Your task to perform on an android device: delete location history Image 0: 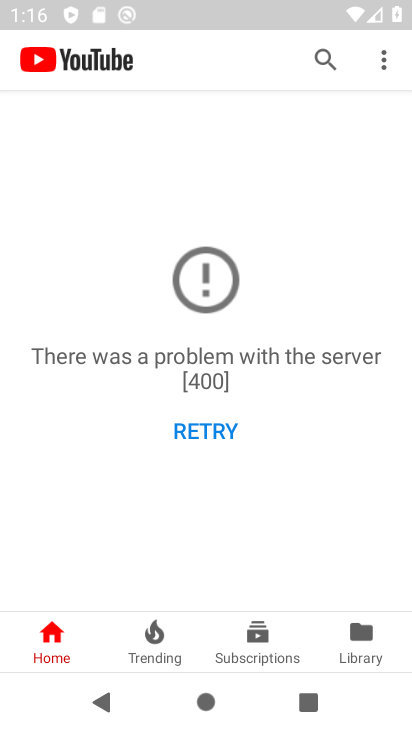
Step 0: press home button
Your task to perform on an android device: delete location history Image 1: 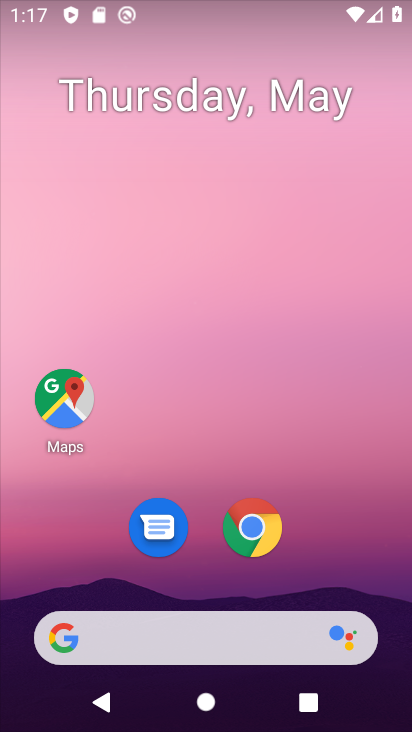
Step 1: click (60, 393)
Your task to perform on an android device: delete location history Image 2: 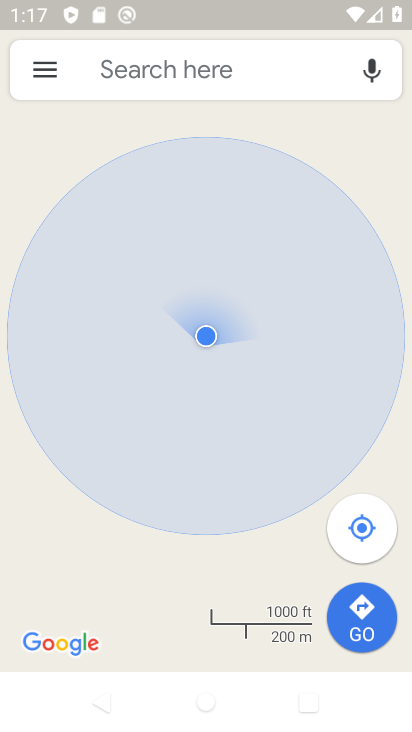
Step 2: click (60, 72)
Your task to perform on an android device: delete location history Image 3: 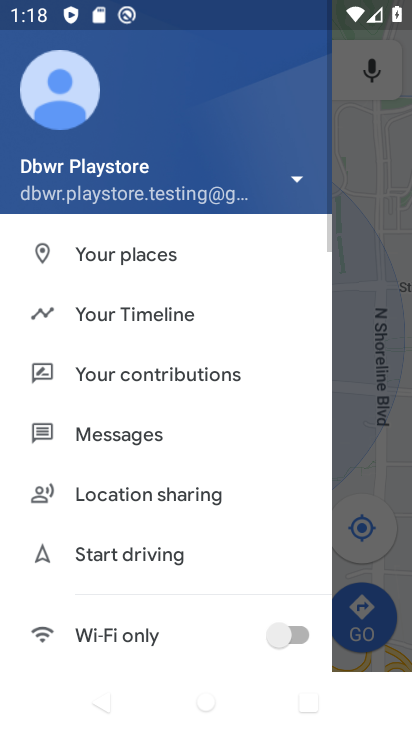
Step 3: drag from (171, 605) to (179, 401)
Your task to perform on an android device: delete location history Image 4: 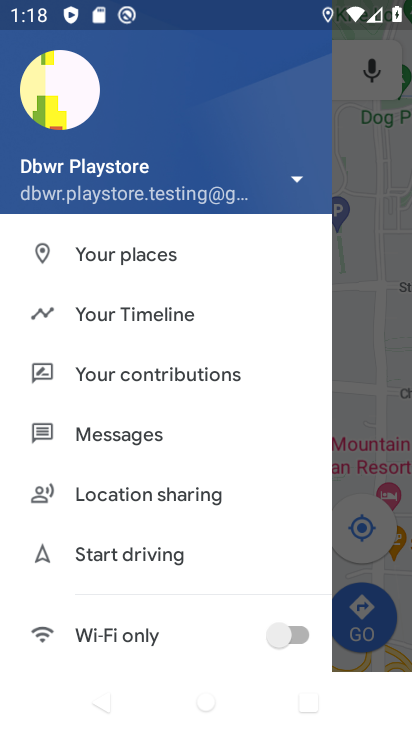
Step 4: click (81, 315)
Your task to perform on an android device: delete location history Image 5: 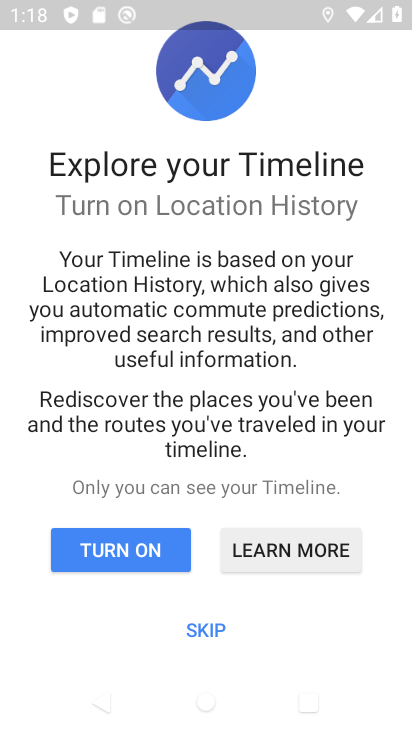
Step 5: click (203, 633)
Your task to perform on an android device: delete location history Image 6: 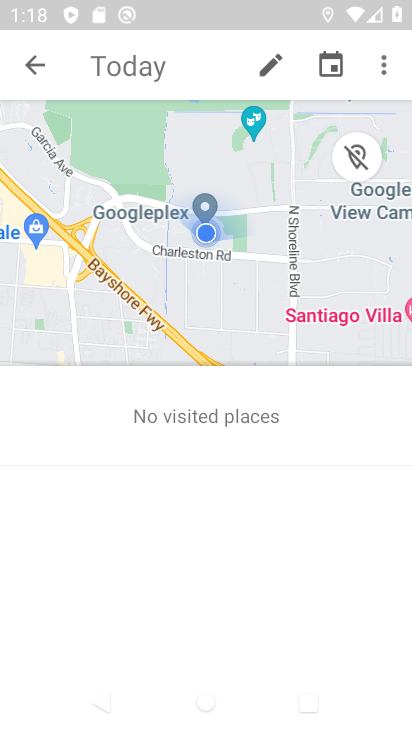
Step 6: drag from (389, 66) to (296, 430)
Your task to perform on an android device: delete location history Image 7: 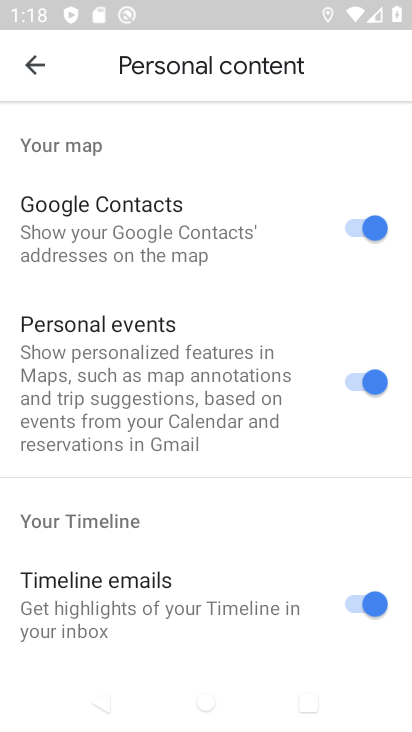
Step 7: drag from (187, 576) to (226, 142)
Your task to perform on an android device: delete location history Image 8: 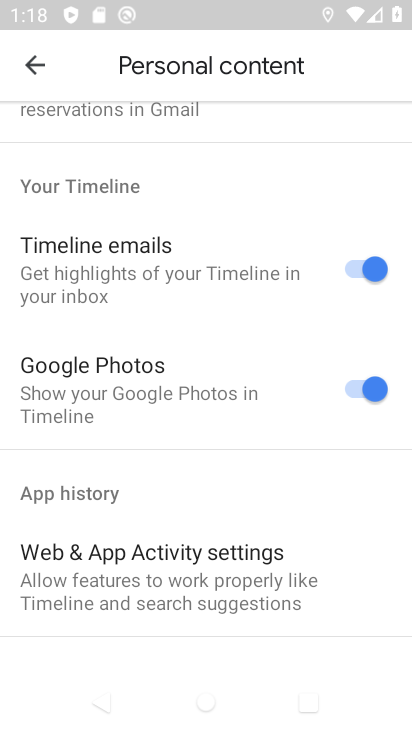
Step 8: drag from (229, 532) to (208, 89)
Your task to perform on an android device: delete location history Image 9: 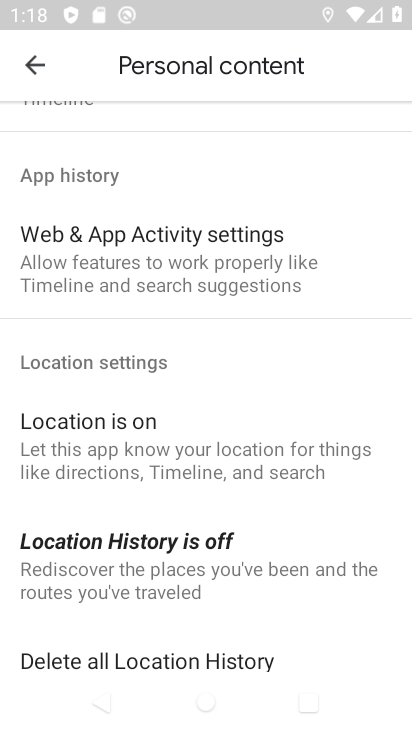
Step 9: drag from (221, 577) to (219, 186)
Your task to perform on an android device: delete location history Image 10: 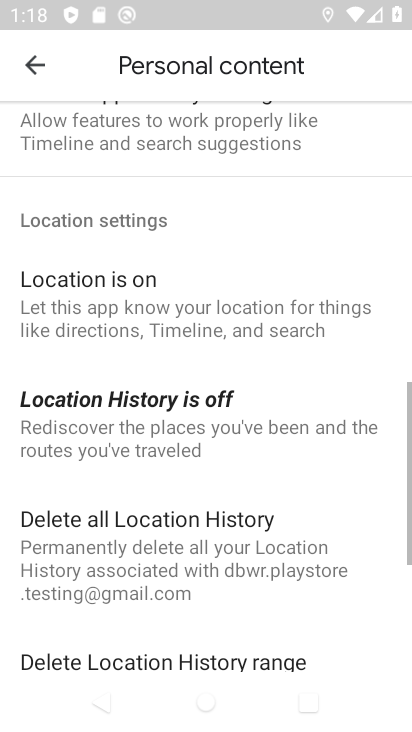
Step 10: drag from (226, 394) to (210, 131)
Your task to perform on an android device: delete location history Image 11: 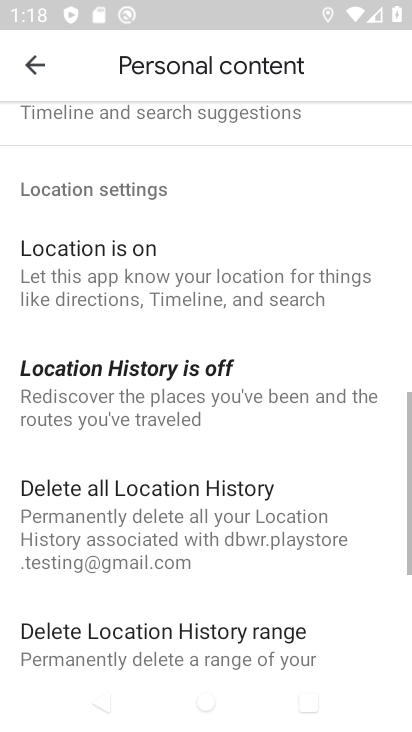
Step 11: drag from (183, 444) to (176, 160)
Your task to perform on an android device: delete location history Image 12: 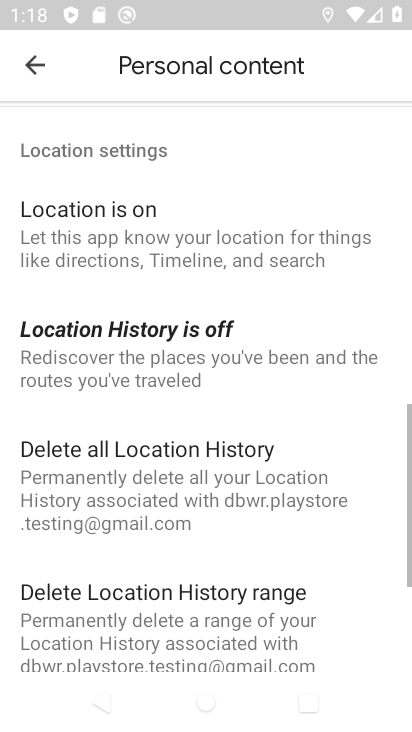
Step 12: drag from (181, 561) to (194, 155)
Your task to perform on an android device: delete location history Image 13: 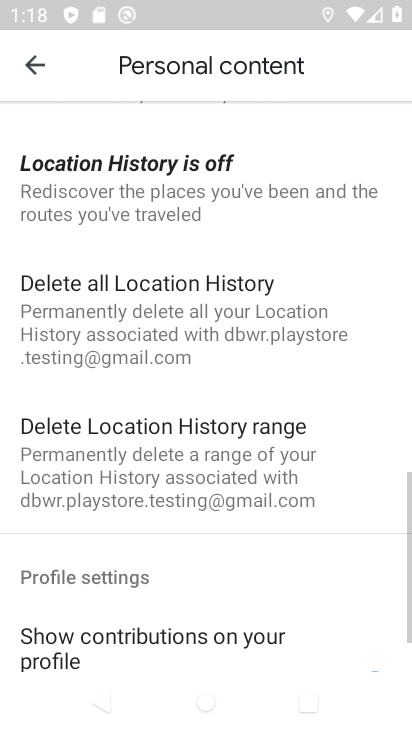
Step 13: drag from (157, 421) to (149, 151)
Your task to perform on an android device: delete location history Image 14: 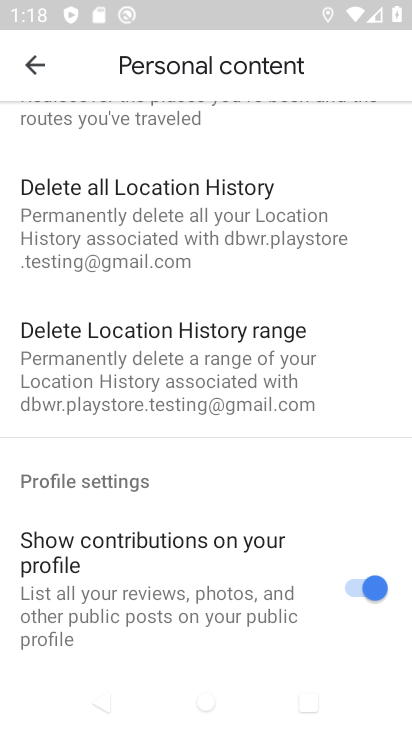
Step 14: click (192, 243)
Your task to perform on an android device: delete location history Image 15: 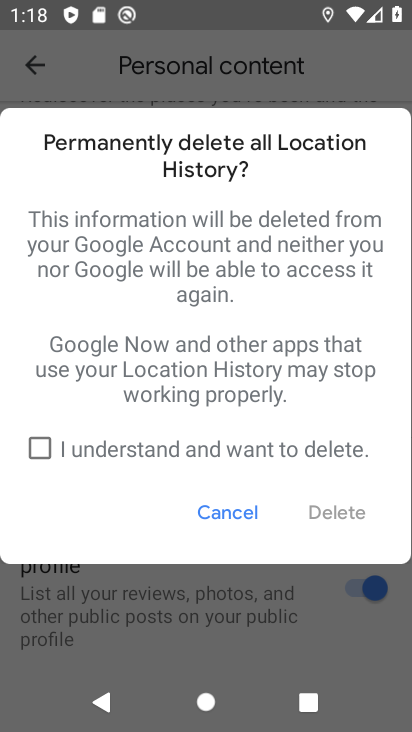
Step 15: click (172, 451)
Your task to perform on an android device: delete location history Image 16: 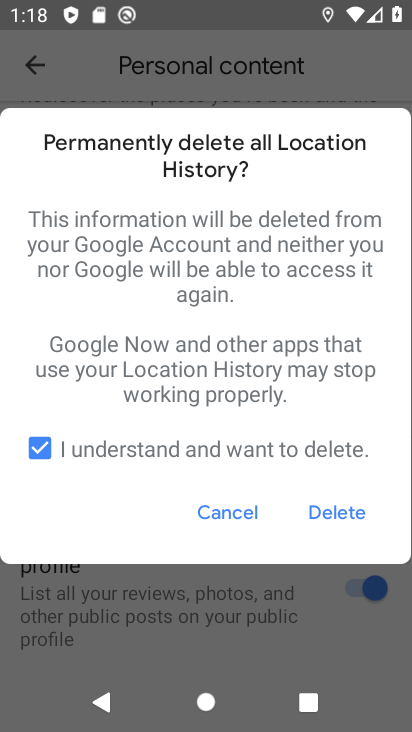
Step 16: click (341, 518)
Your task to perform on an android device: delete location history Image 17: 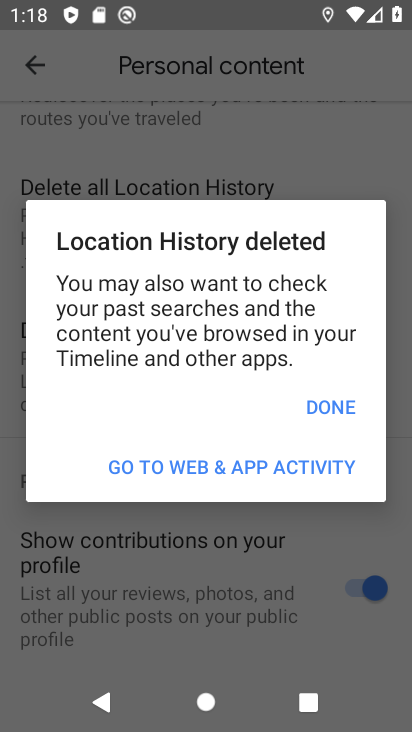
Step 17: click (323, 425)
Your task to perform on an android device: delete location history Image 18: 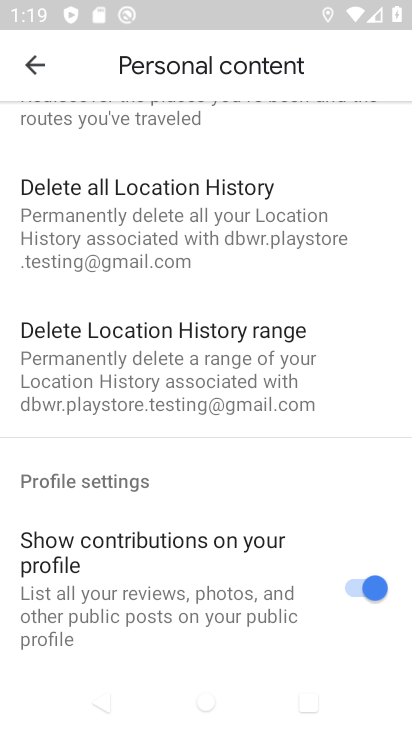
Step 18: task complete